Your task to perform on an android device: Clear the shopping cart on newegg. Search for asus rog on newegg, select the first entry, add it to the cart, then select checkout. Image 0: 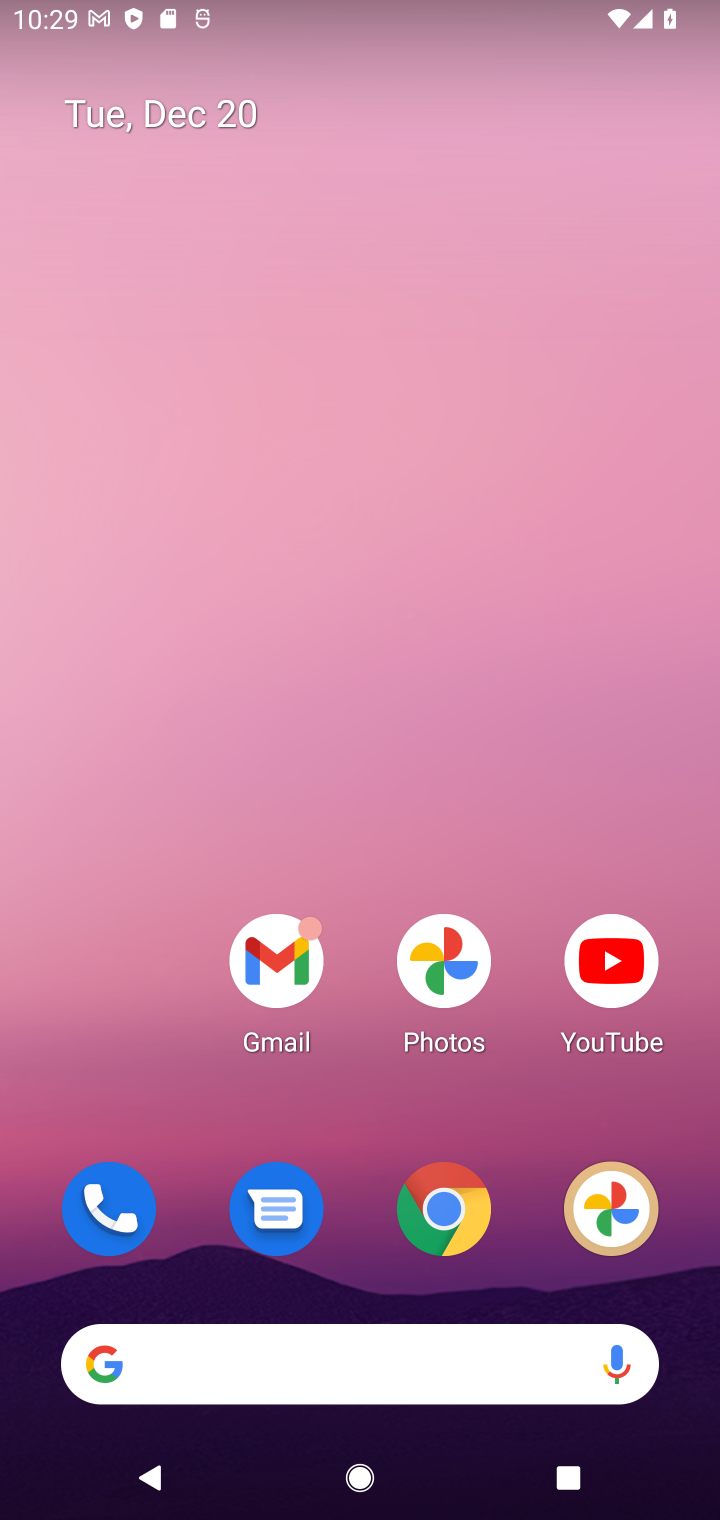
Step 0: click (451, 1214)
Your task to perform on an android device: Clear the shopping cart on newegg. Search for asus rog on newegg, select the first entry, add it to the cart, then select checkout. Image 1: 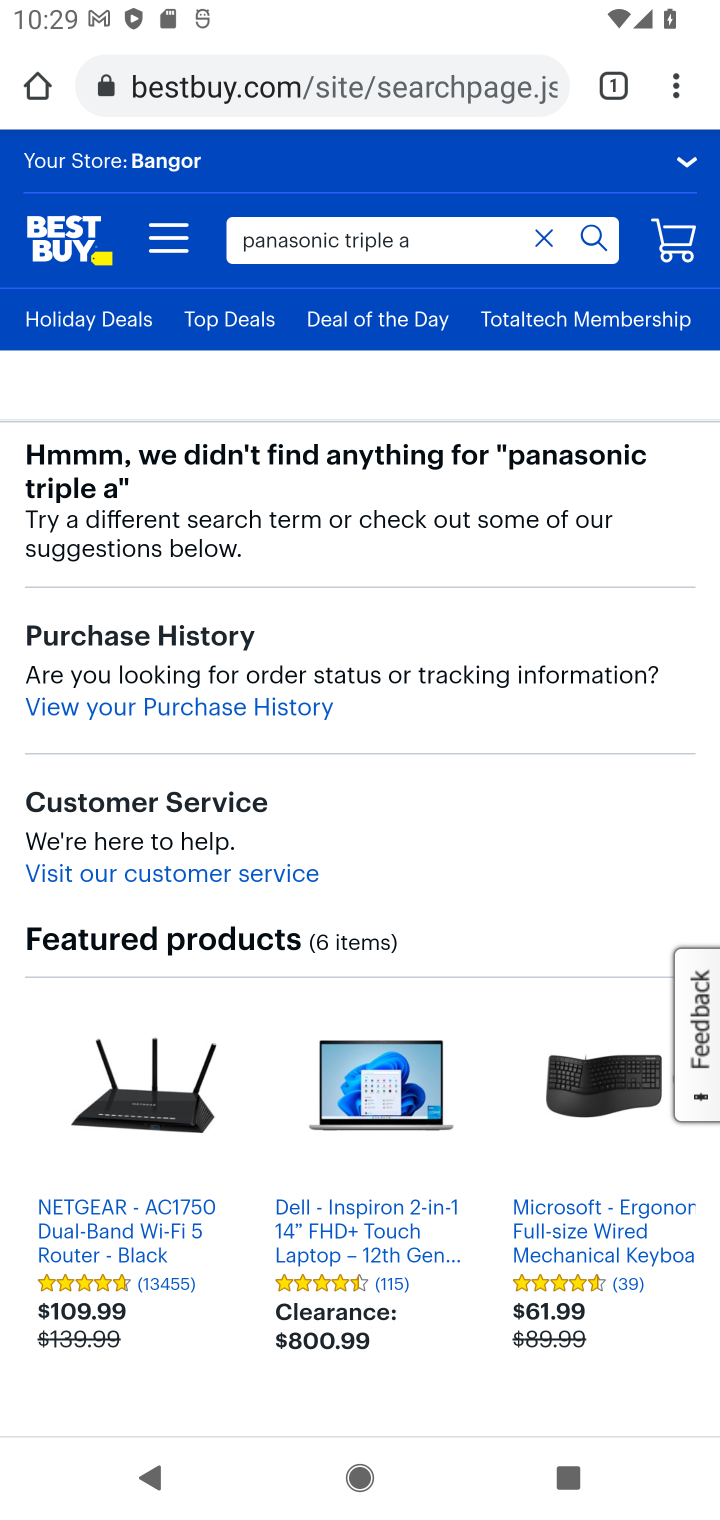
Step 1: click (271, 89)
Your task to perform on an android device: Clear the shopping cart on newegg. Search for asus rog on newegg, select the first entry, add it to the cart, then select checkout. Image 2: 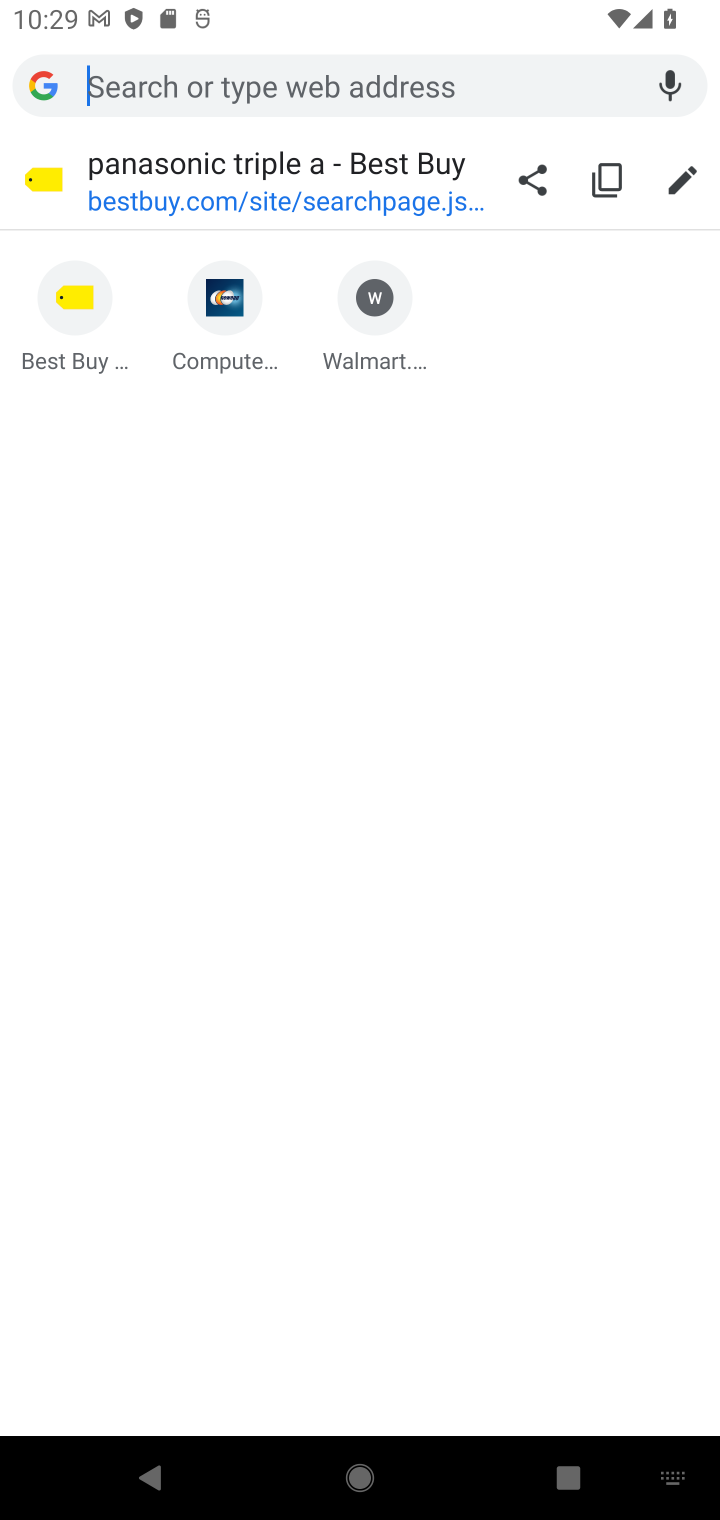
Step 2: click (217, 334)
Your task to perform on an android device: Clear the shopping cart on newegg. Search for asus rog on newegg, select the first entry, add it to the cart, then select checkout. Image 3: 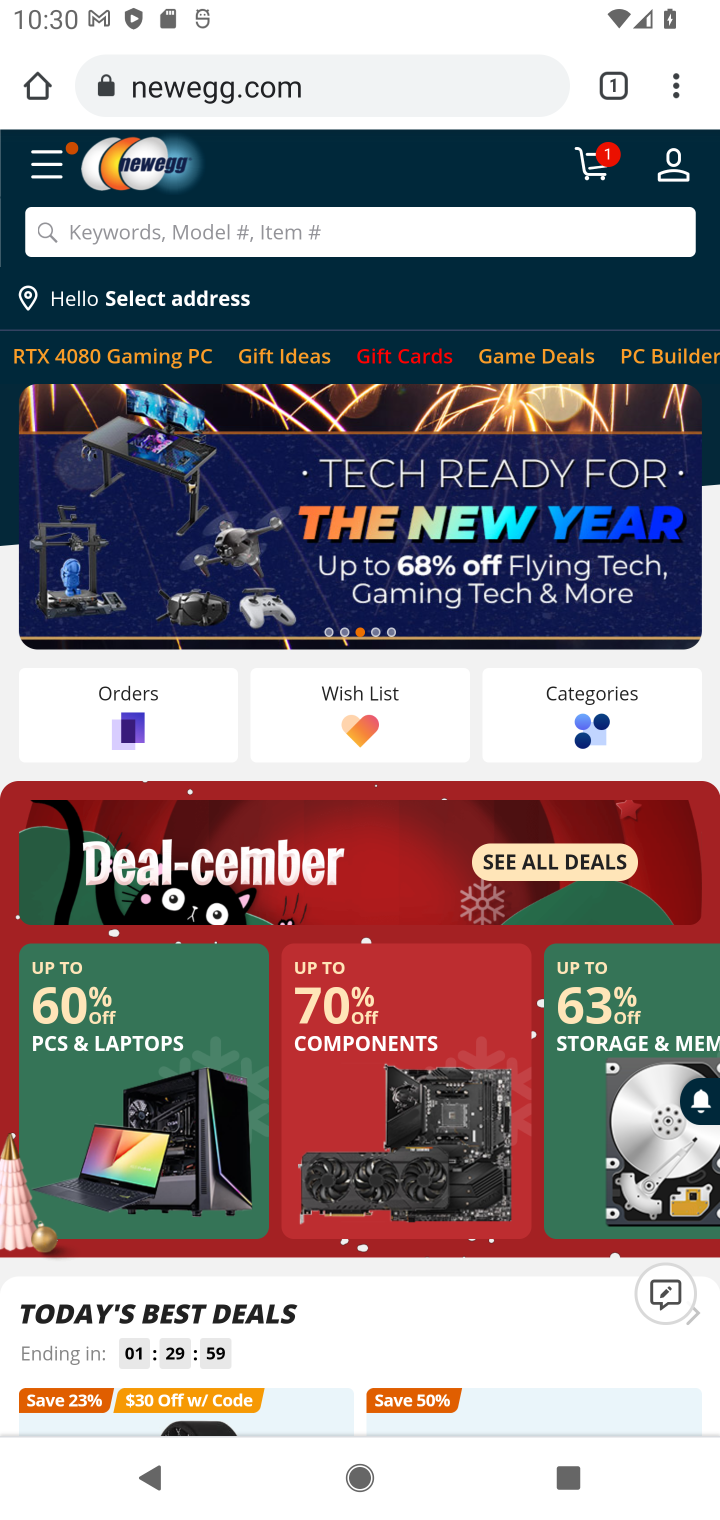
Step 3: click (598, 166)
Your task to perform on an android device: Clear the shopping cart on newegg. Search for asus rog on newegg, select the first entry, add it to the cart, then select checkout. Image 4: 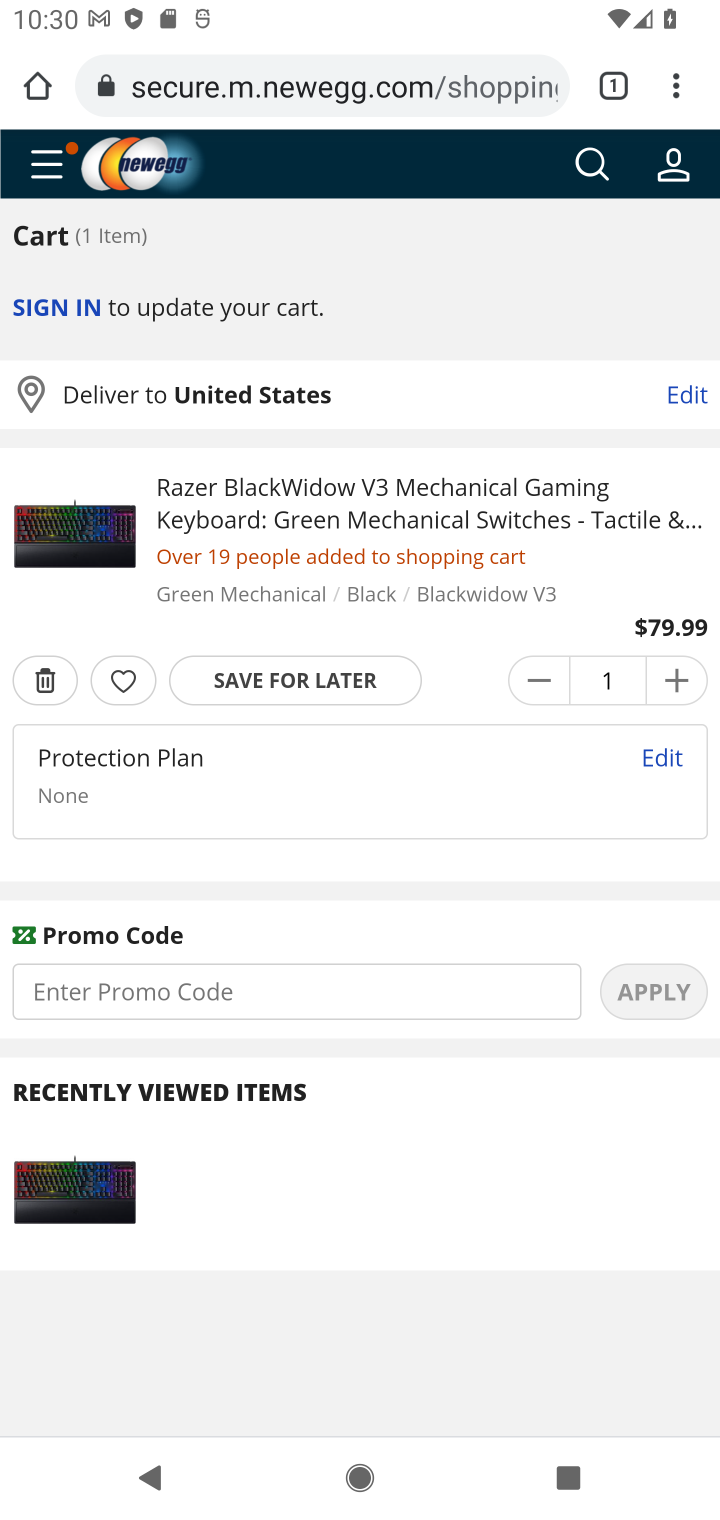
Step 4: click (43, 672)
Your task to perform on an android device: Clear the shopping cart on newegg. Search for asus rog on newegg, select the first entry, add it to the cart, then select checkout. Image 5: 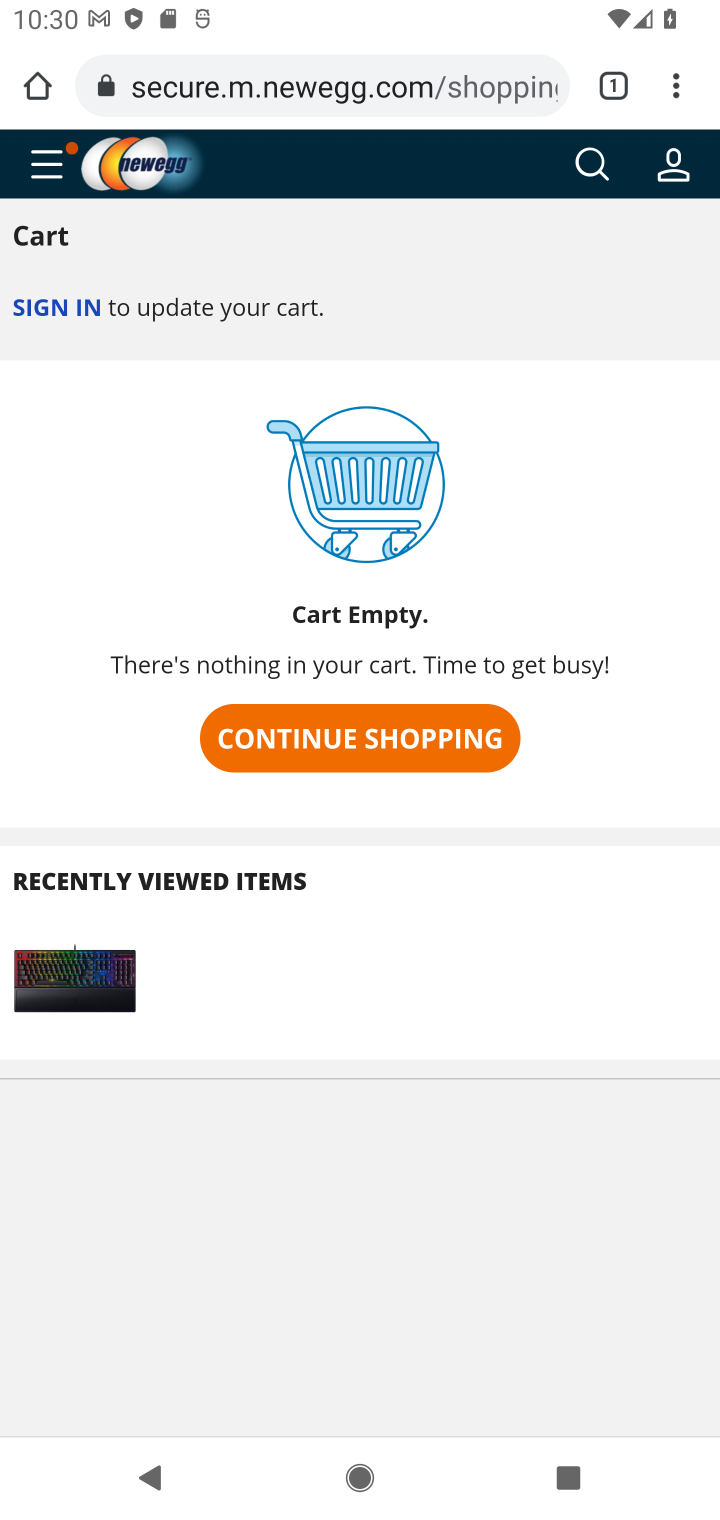
Step 5: click (592, 162)
Your task to perform on an android device: Clear the shopping cart on newegg. Search for asus rog on newegg, select the first entry, add it to the cart, then select checkout. Image 6: 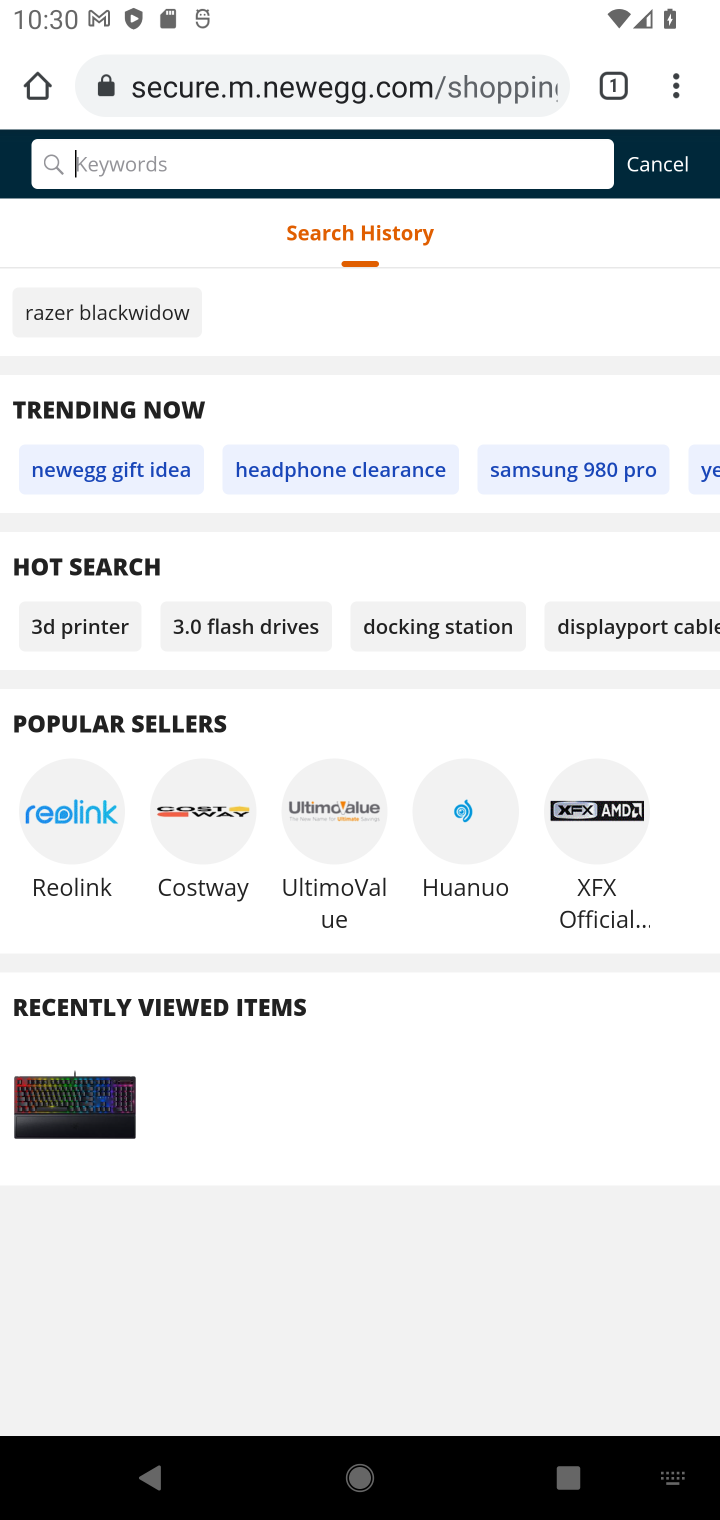
Step 6: type "asus rog"
Your task to perform on an android device: Clear the shopping cart on newegg. Search for asus rog on newegg, select the first entry, add it to the cart, then select checkout. Image 7: 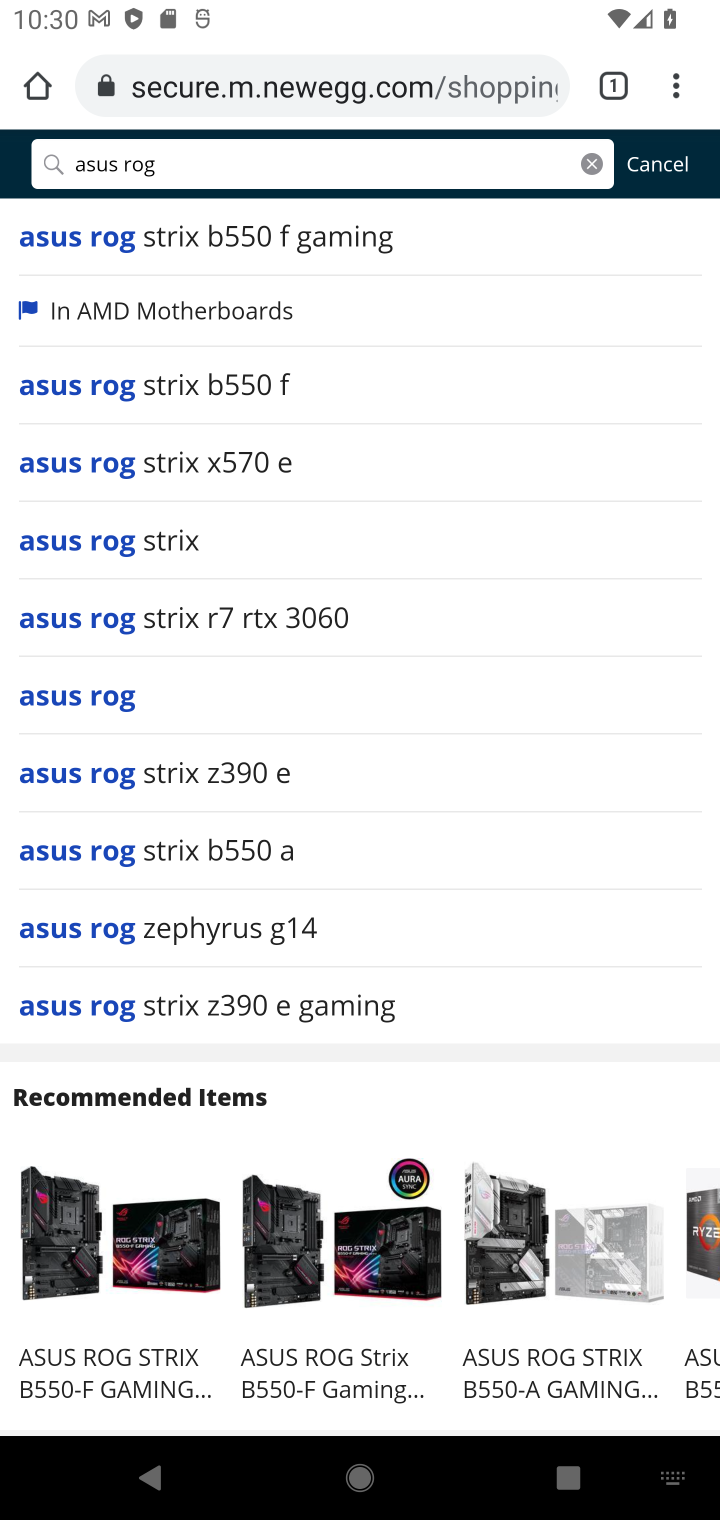
Step 7: click (78, 696)
Your task to perform on an android device: Clear the shopping cart on newegg. Search for asus rog on newegg, select the first entry, add it to the cart, then select checkout. Image 8: 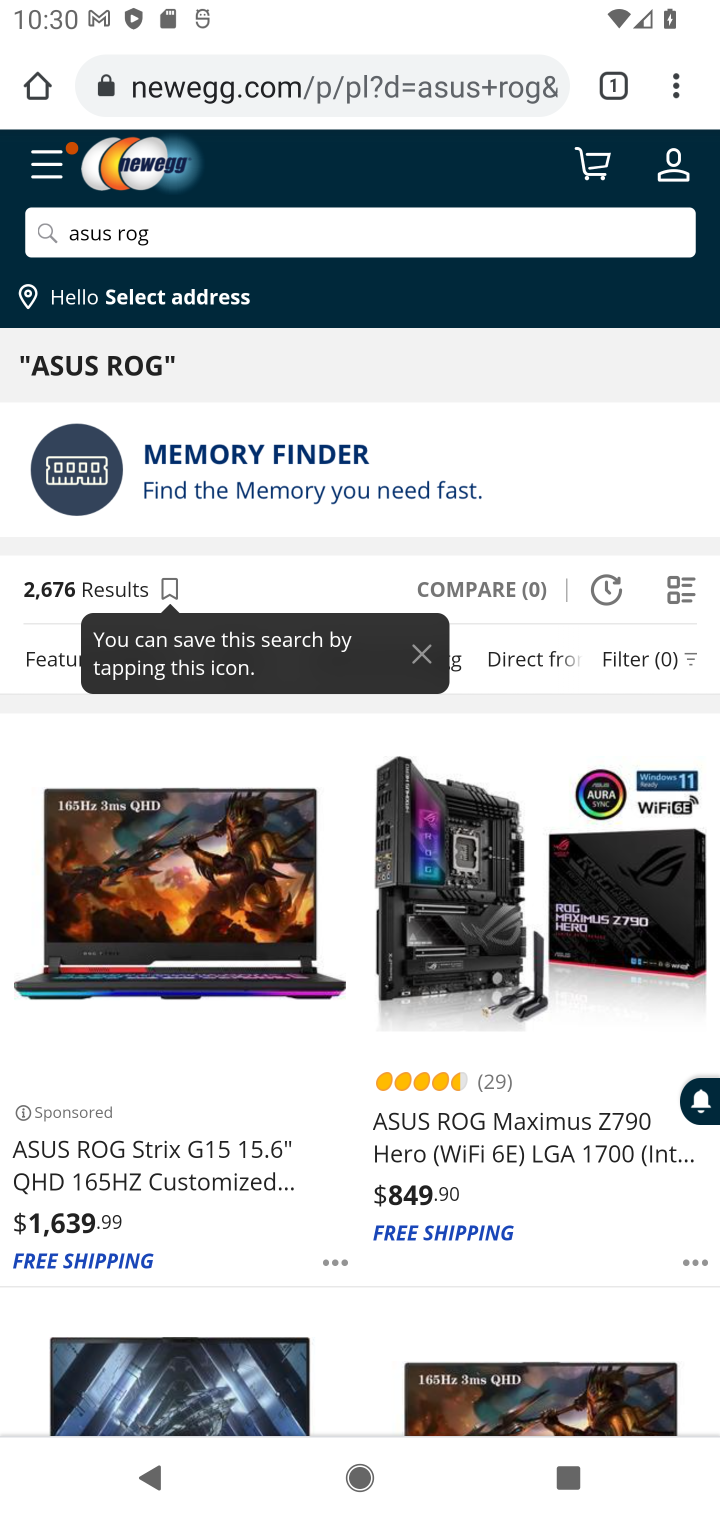
Step 8: click (83, 1176)
Your task to perform on an android device: Clear the shopping cart on newegg. Search for asus rog on newegg, select the first entry, add it to the cart, then select checkout. Image 9: 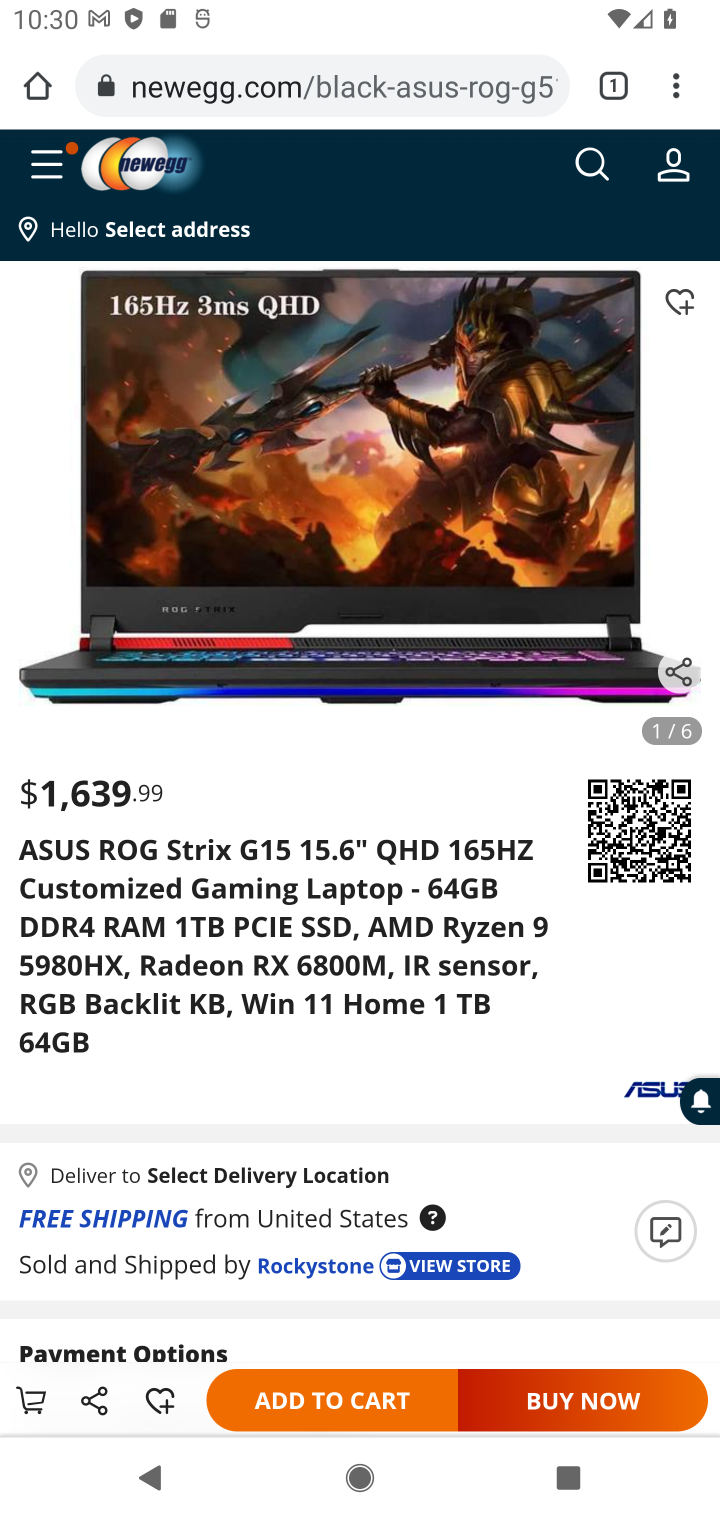
Step 9: click (325, 1396)
Your task to perform on an android device: Clear the shopping cart on newegg. Search for asus rog on newegg, select the first entry, add it to the cart, then select checkout. Image 10: 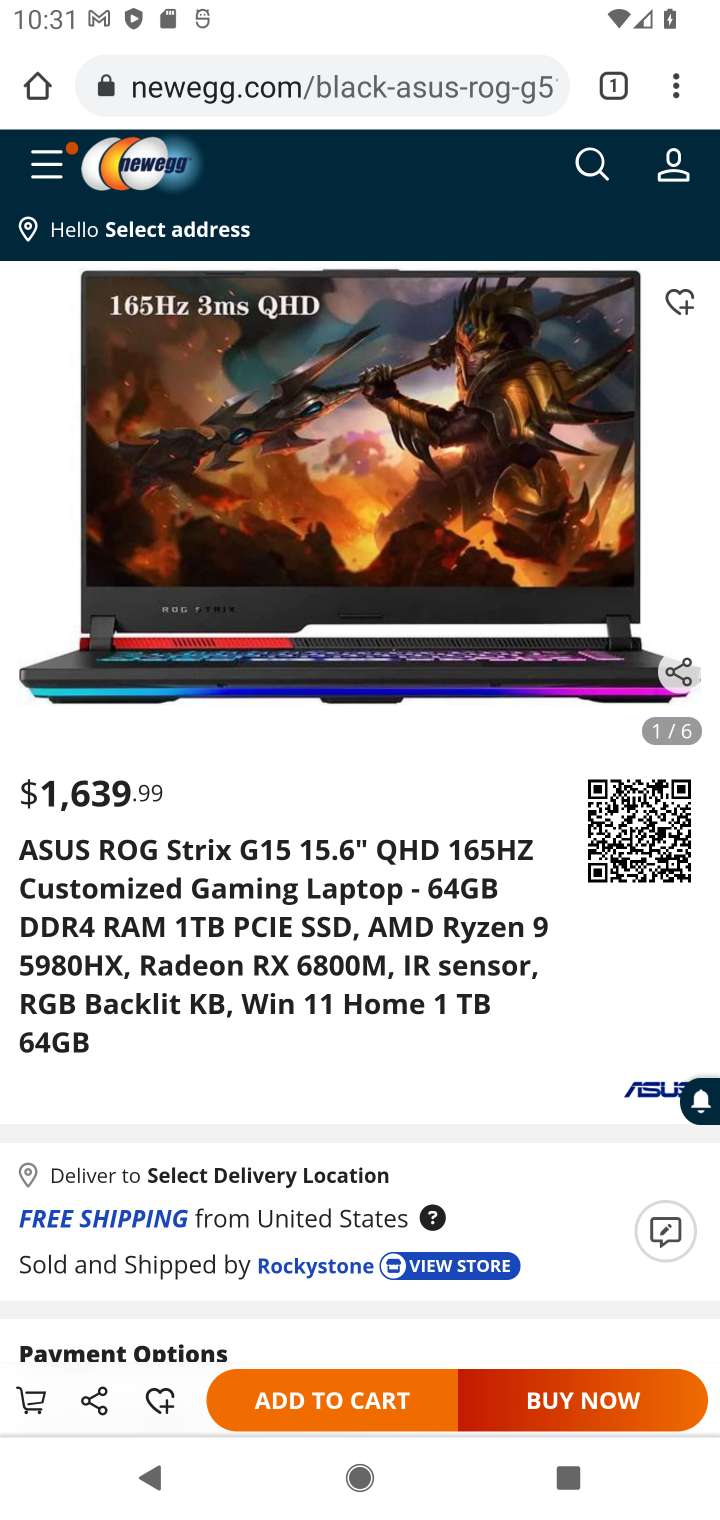
Step 10: click (302, 1403)
Your task to perform on an android device: Clear the shopping cart on newegg. Search for asus rog on newegg, select the first entry, add it to the cart, then select checkout. Image 11: 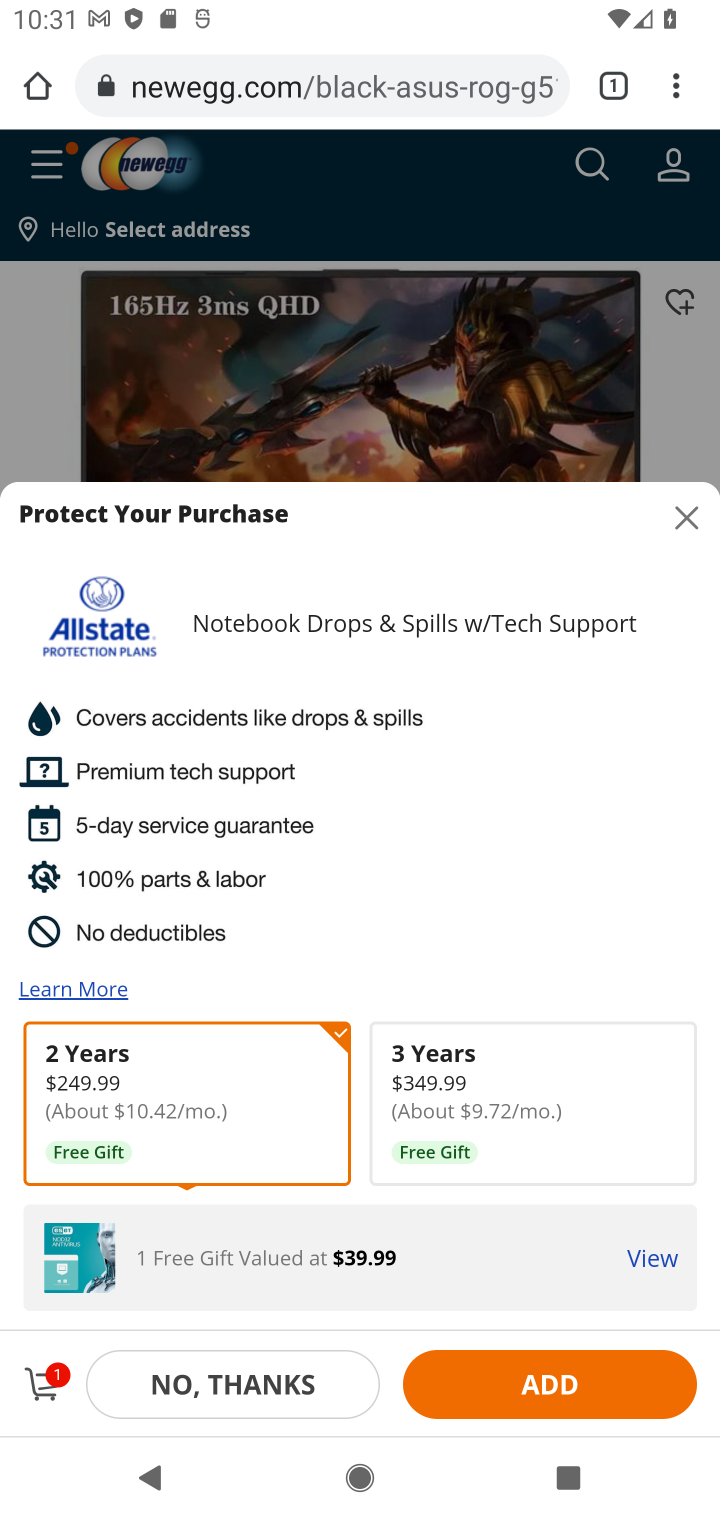
Step 11: click (50, 1384)
Your task to perform on an android device: Clear the shopping cart on newegg. Search for asus rog on newegg, select the first entry, add it to the cart, then select checkout. Image 12: 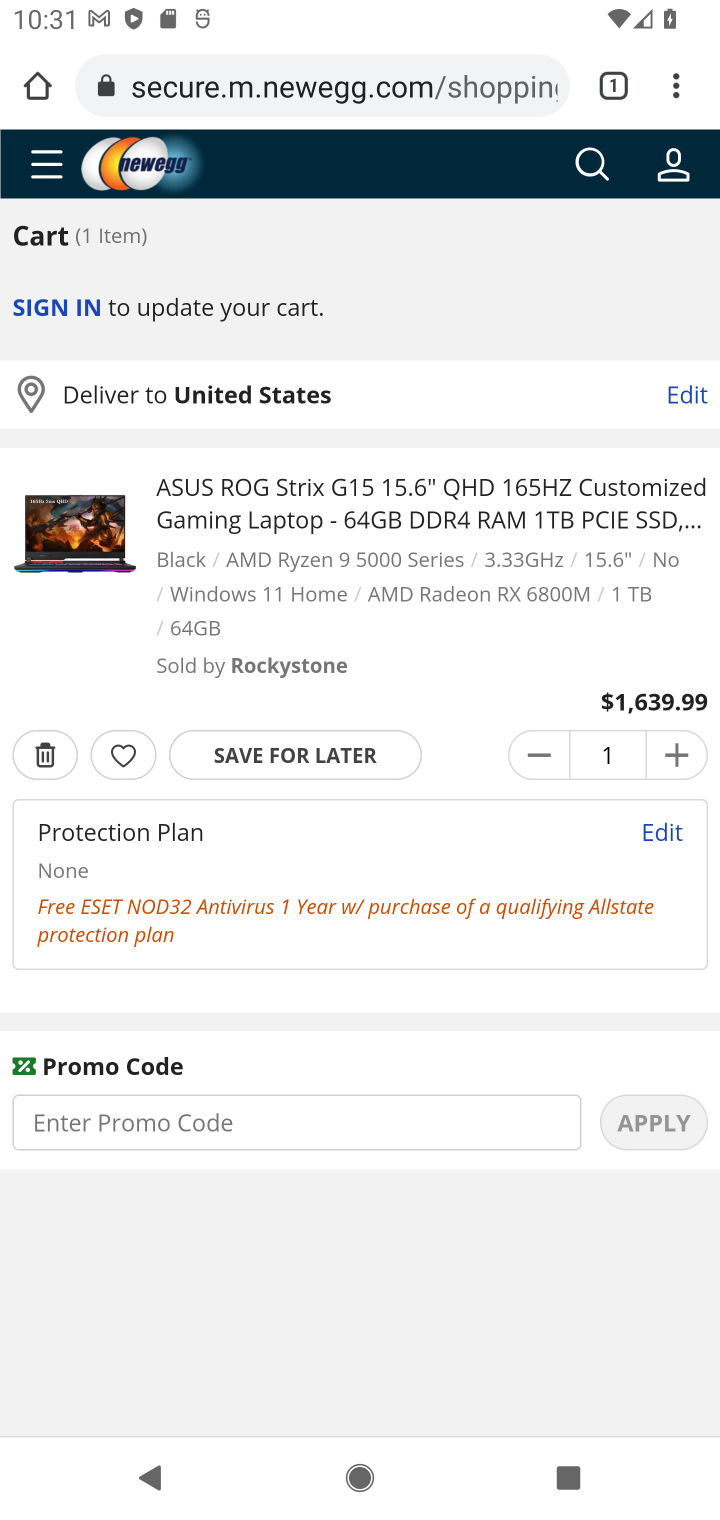
Step 12: click (307, 1280)
Your task to perform on an android device: Clear the shopping cart on newegg. Search for asus rog on newegg, select the first entry, add it to the cart, then select checkout. Image 13: 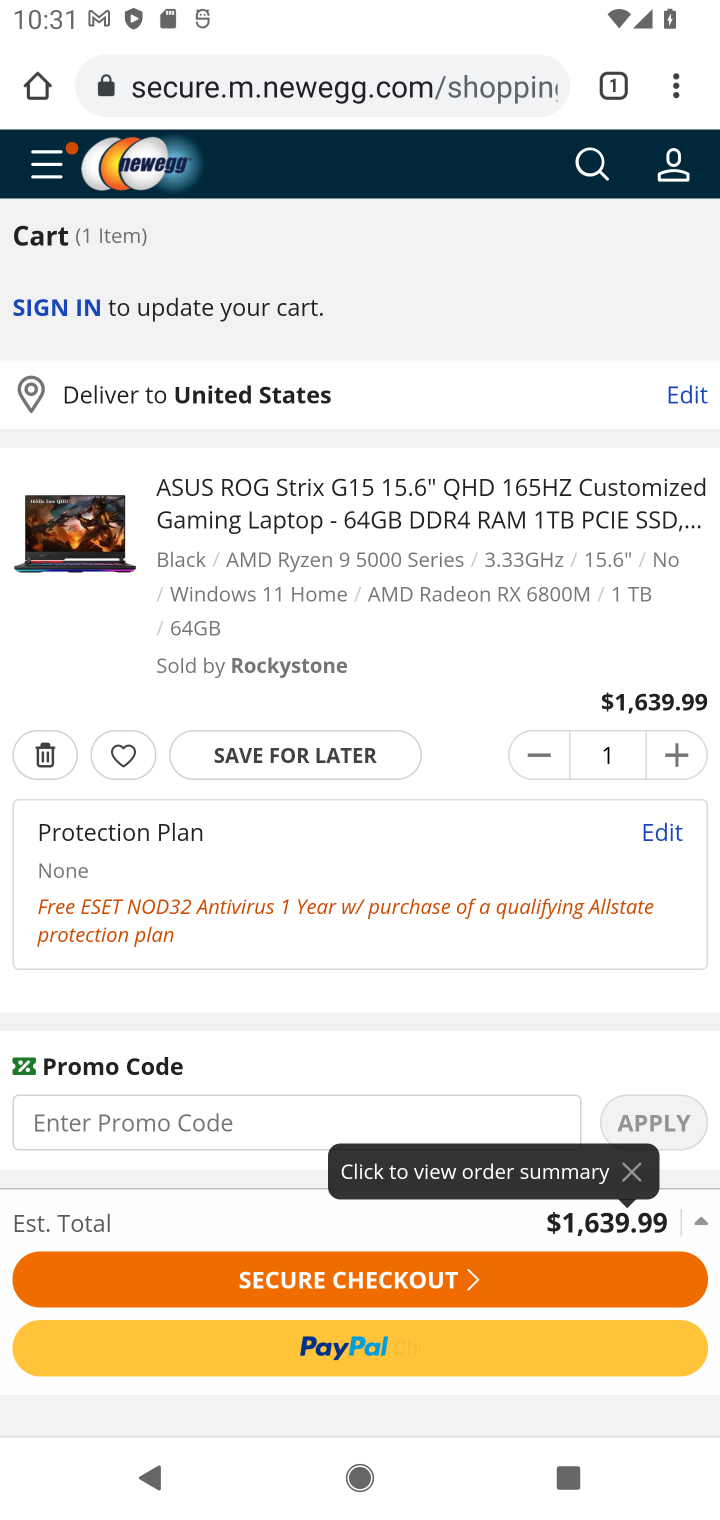
Step 13: click (307, 1280)
Your task to perform on an android device: Clear the shopping cart on newegg. Search for asus rog on newegg, select the first entry, add it to the cart, then select checkout. Image 14: 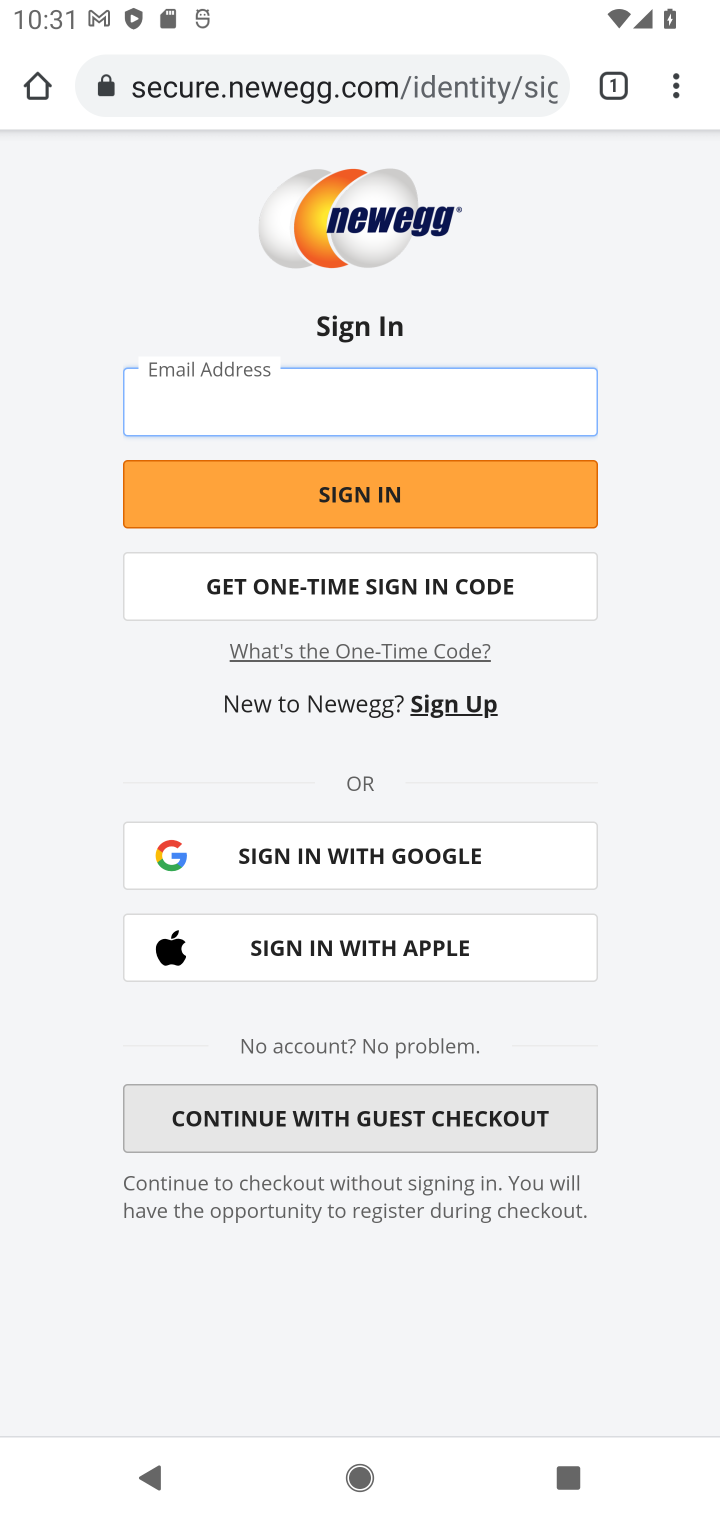
Step 14: task complete